Your task to perform on an android device: What is the recent news? Image 0: 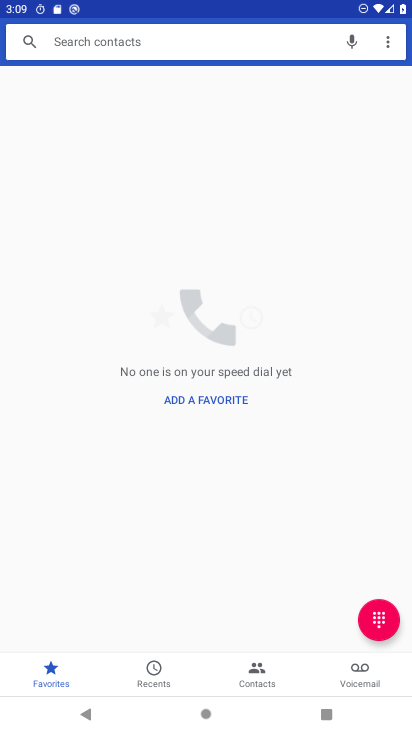
Step 0: press home button
Your task to perform on an android device: What is the recent news? Image 1: 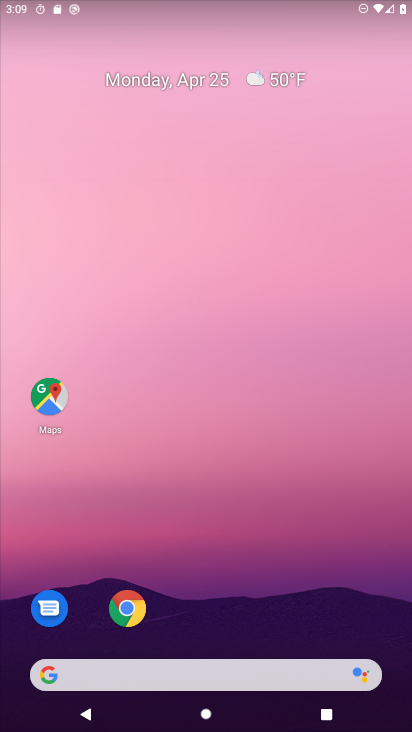
Step 1: drag from (211, 627) to (218, 156)
Your task to perform on an android device: What is the recent news? Image 2: 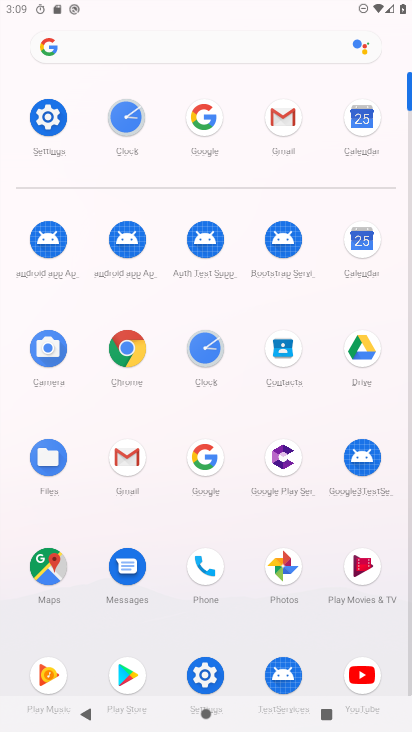
Step 2: click (216, 131)
Your task to perform on an android device: What is the recent news? Image 3: 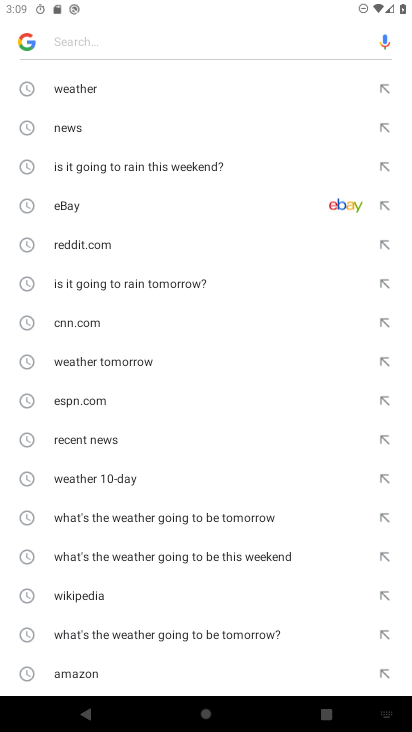
Step 3: click (103, 131)
Your task to perform on an android device: What is the recent news? Image 4: 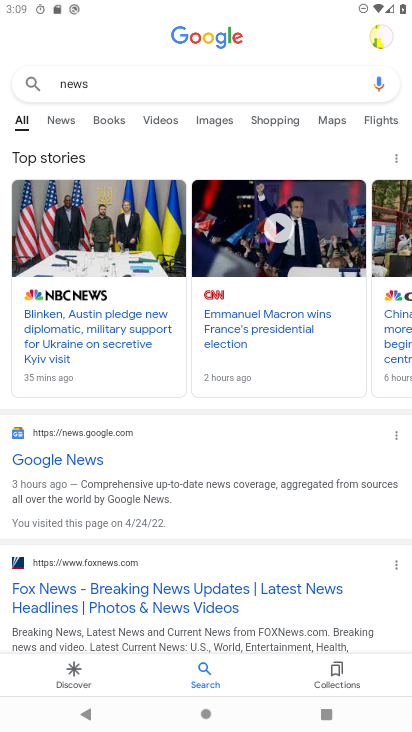
Step 4: click (71, 125)
Your task to perform on an android device: What is the recent news? Image 5: 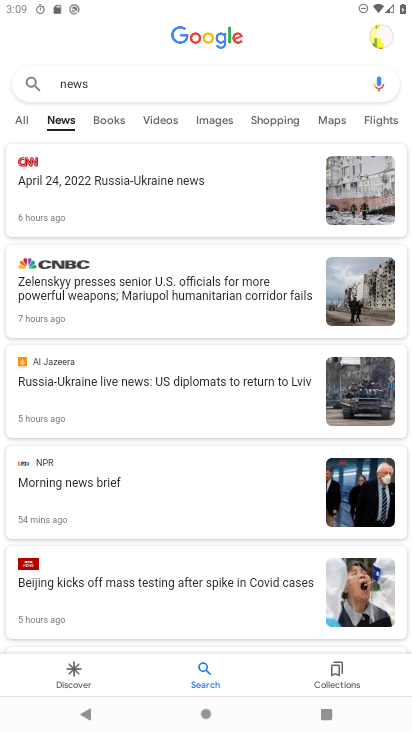
Step 5: task complete